Your task to perform on an android device: Open Reddit.com Image 0: 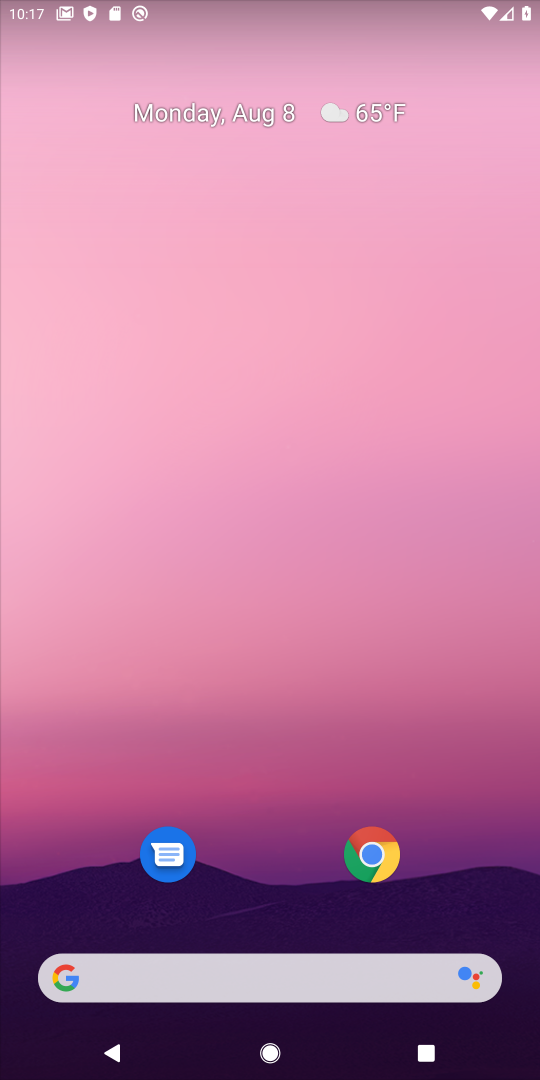
Step 0: click (199, 961)
Your task to perform on an android device: Open Reddit.com Image 1: 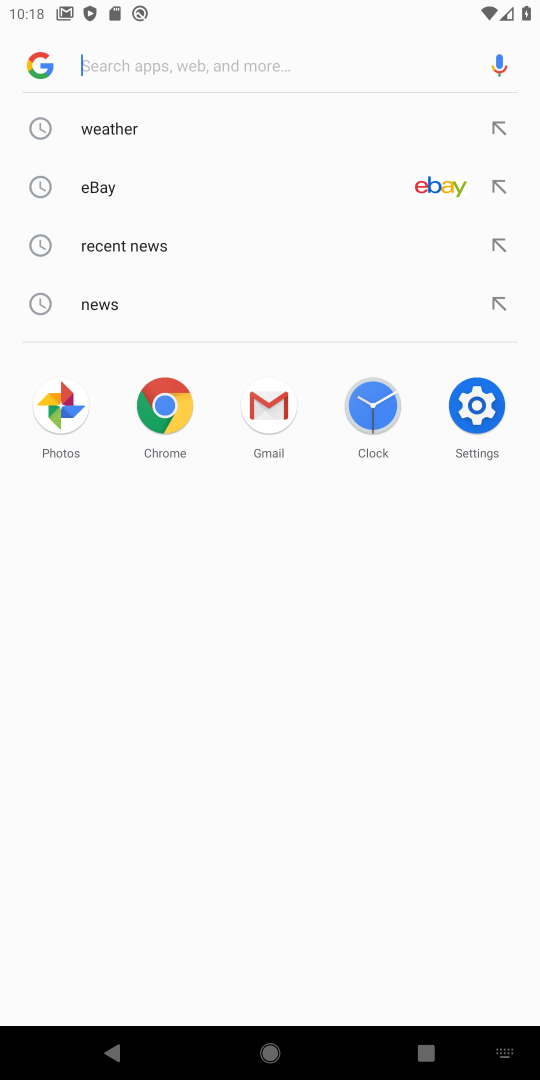
Step 1: type "rediit"
Your task to perform on an android device: Open Reddit.com Image 2: 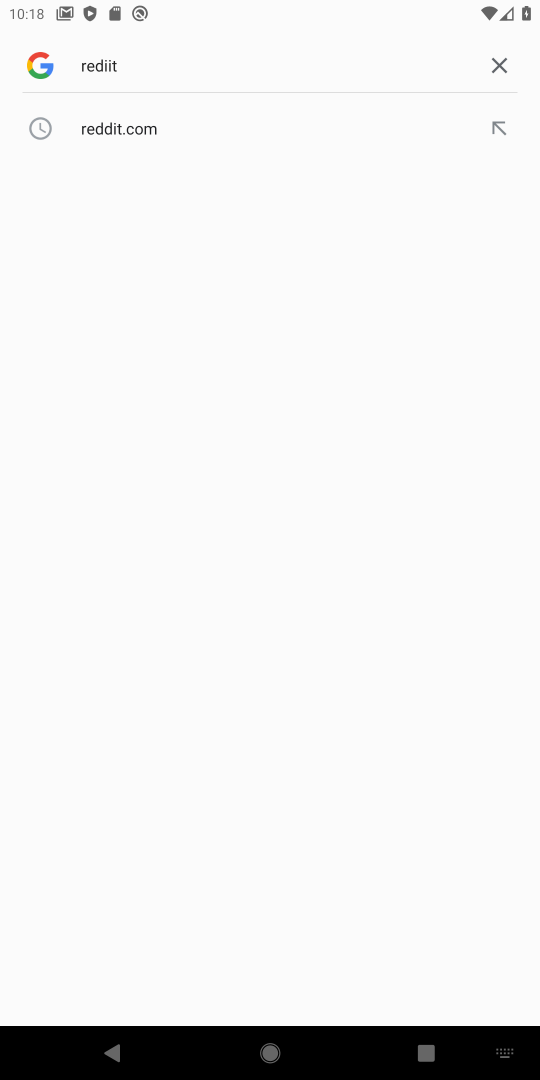
Step 2: click (125, 142)
Your task to perform on an android device: Open Reddit.com Image 3: 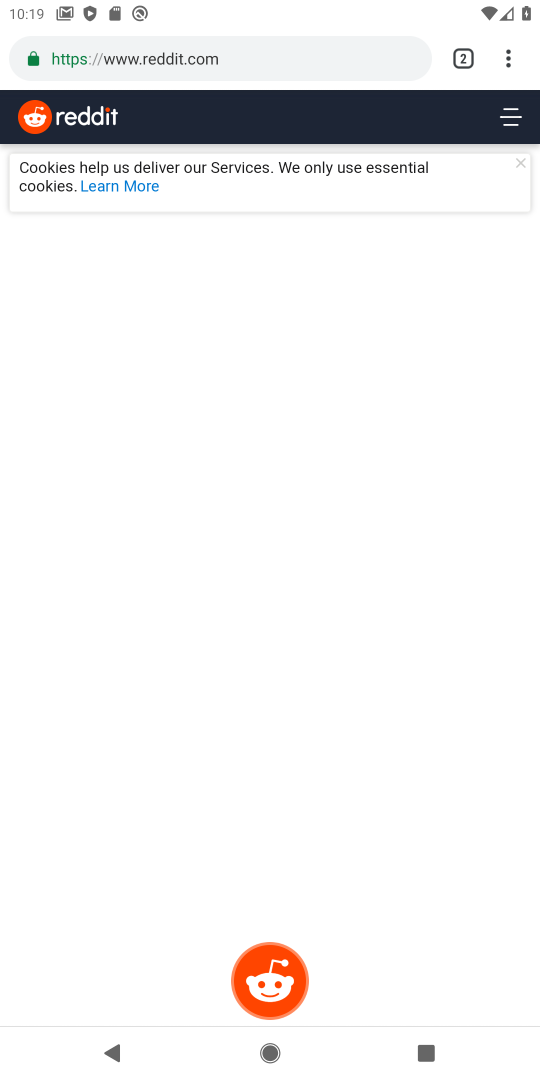
Step 3: task complete